Your task to perform on an android device: see sites visited before in the chrome app Image 0: 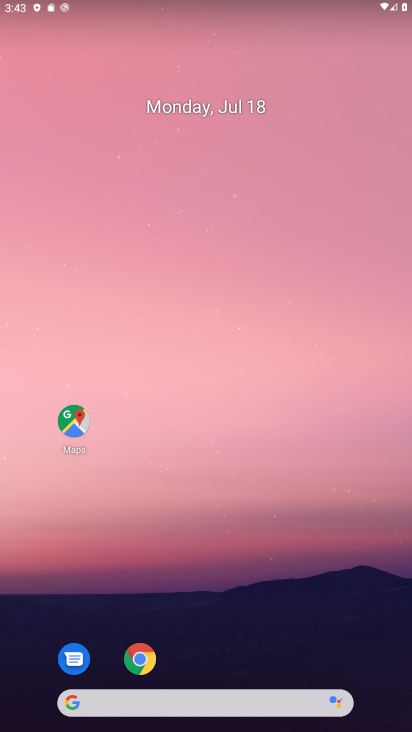
Step 0: drag from (307, 683) to (352, 19)
Your task to perform on an android device: see sites visited before in the chrome app Image 1: 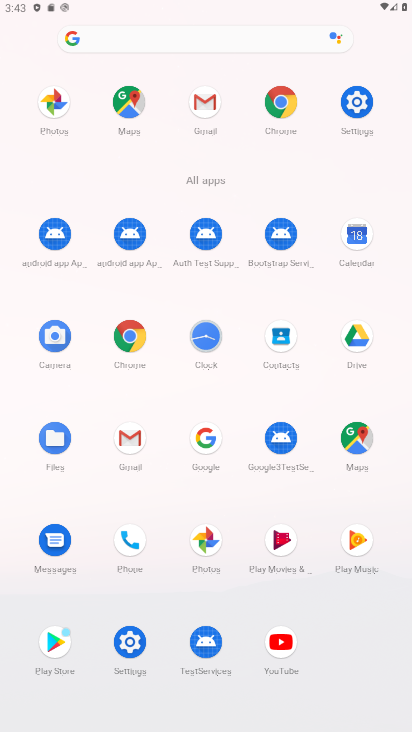
Step 1: click (128, 332)
Your task to perform on an android device: see sites visited before in the chrome app Image 2: 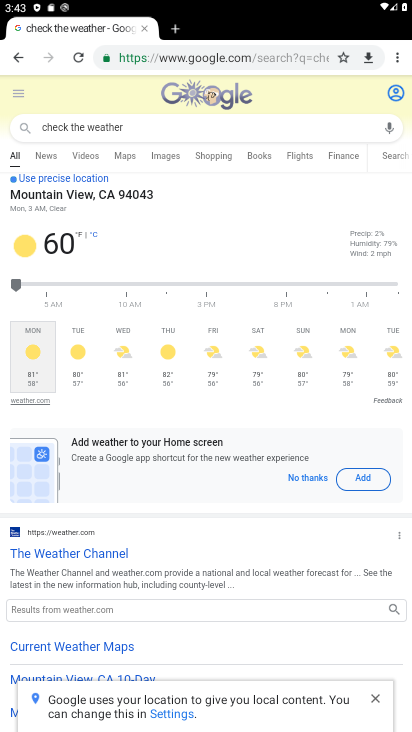
Step 2: task complete